Your task to perform on an android device: Open Google Maps and go to "Timeline" Image 0: 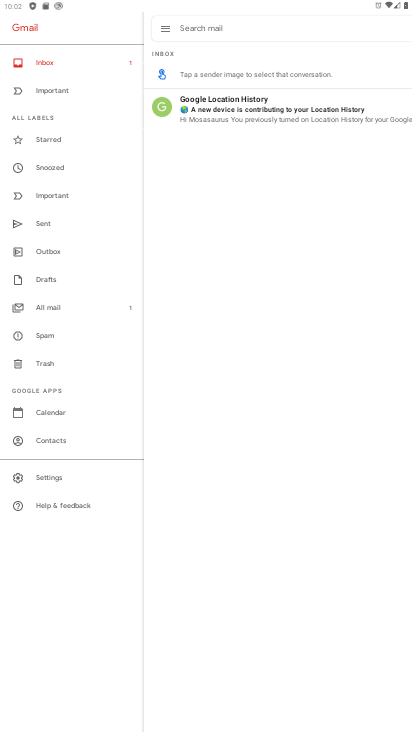
Step 0: press home button
Your task to perform on an android device: Open Google Maps and go to "Timeline" Image 1: 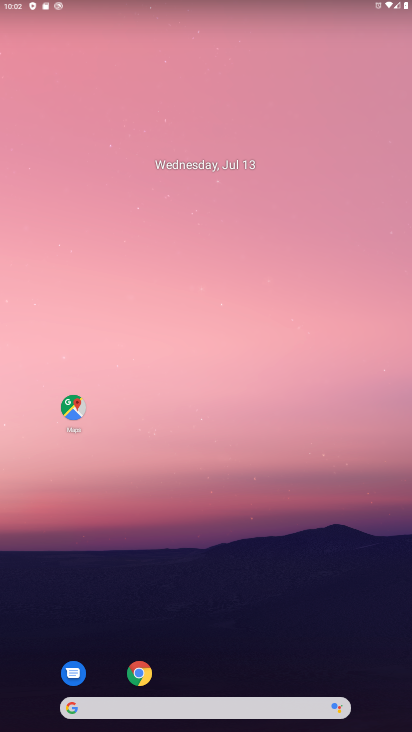
Step 1: click (70, 414)
Your task to perform on an android device: Open Google Maps and go to "Timeline" Image 2: 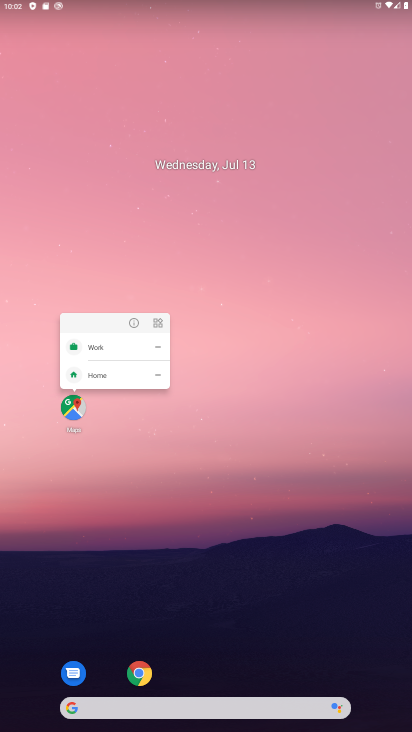
Step 2: click (69, 413)
Your task to perform on an android device: Open Google Maps and go to "Timeline" Image 3: 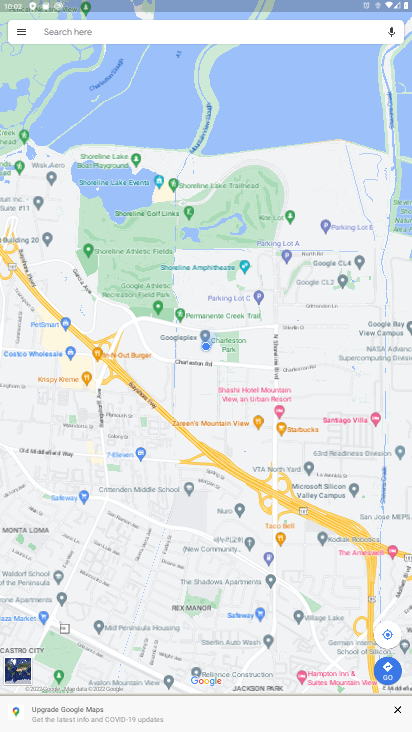
Step 3: click (19, 27)
Your task to perform on an android device: Open Google Maps and go to "Timeline" Image 4: 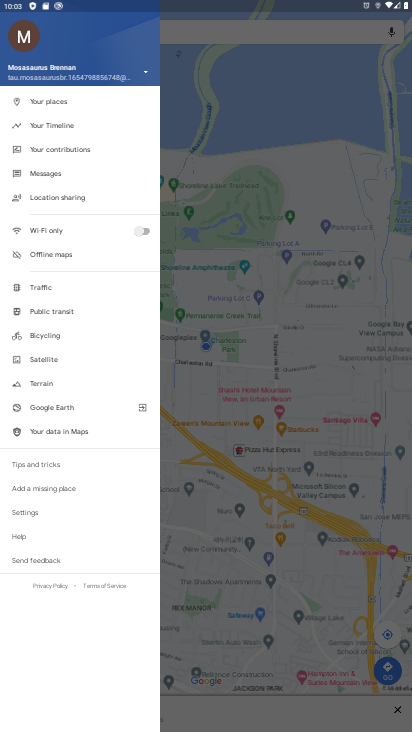
Step 4: click (60, 127)
Your task to perform on an android device: Open Google Maps and go to "Timeline" Image 5: 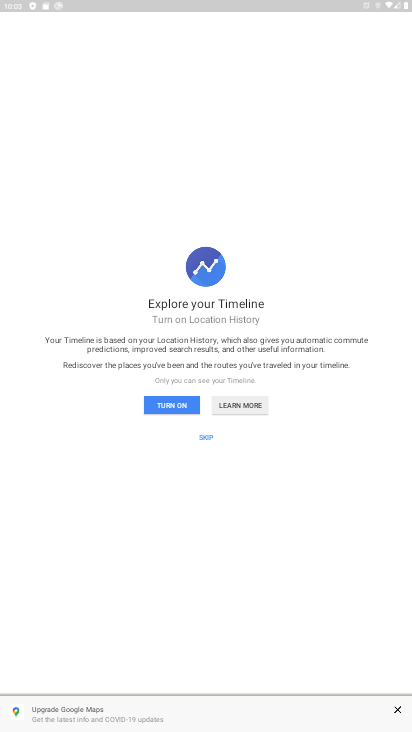
Step 5: click (171, 407)
Your task to perform on an android device: Open Google Maps and go to "Timeline" Image 6: 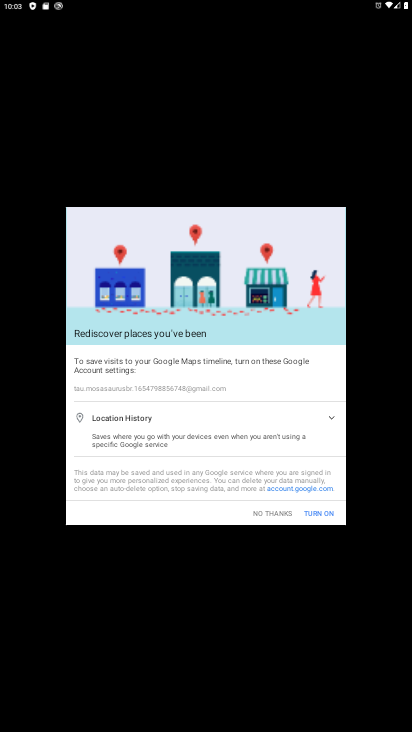
Step 6: click (328, 512)
Your task to perform on an android device: Open Google Maps and go to "Timeline" Image 7: 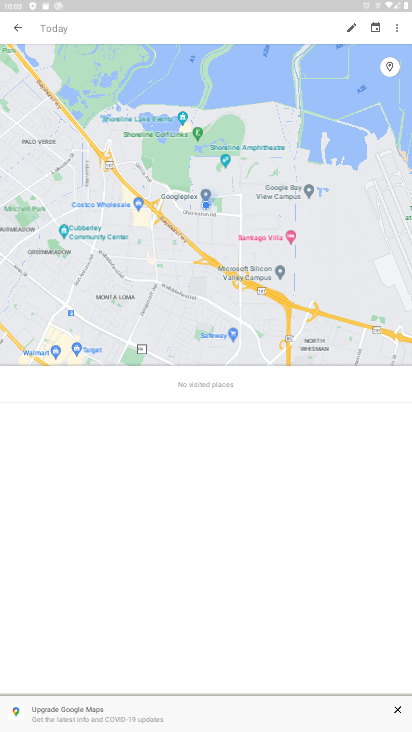
Step 7: task complete